Your task to perform on an android device: Open Google Chrome and click the shortcut for Amazon.com Image 0: 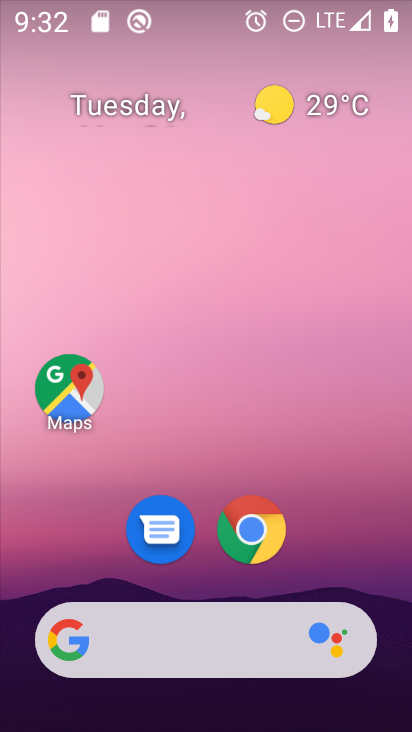
Step 0: drag from (404, 618) to (299, 62)
Your task to perform on an android device: Open Google Chrome and click the shortcut for Amazon.com Image 1: 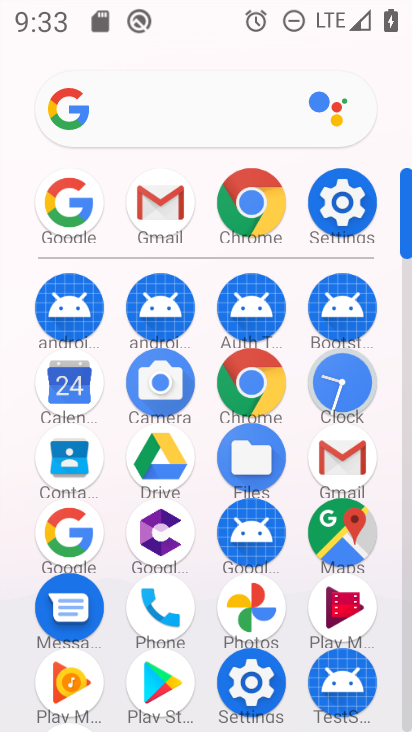
Step 1: click (239, 393)
Your task to perform on an android device: Open Google Chrome and click the shortcut for Amazon.com Image 2: 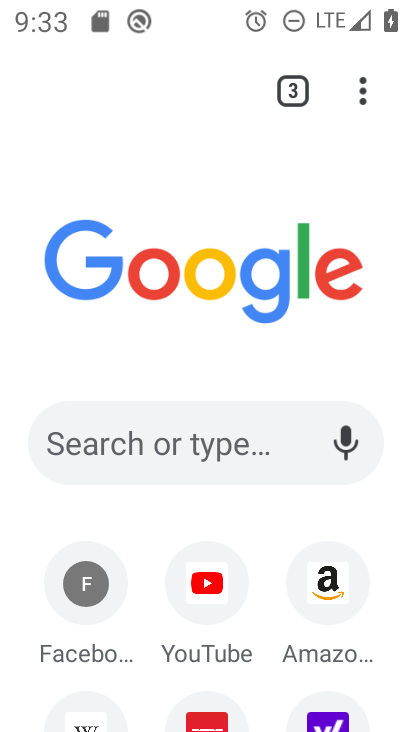
Step 2: click (342, 589)
Your task to perform on an android device: Open Google Chrome and click the shortcut for Amazon.com Image 3: 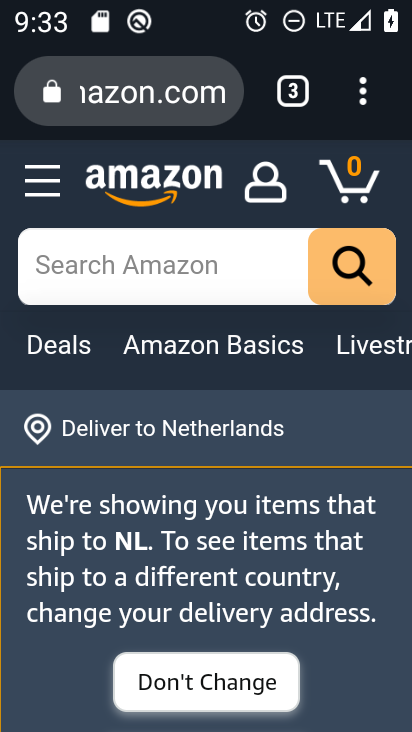
Step 3: task complete